Your task to perform on an android device: toggle show notifications on the lock screen Image 0: 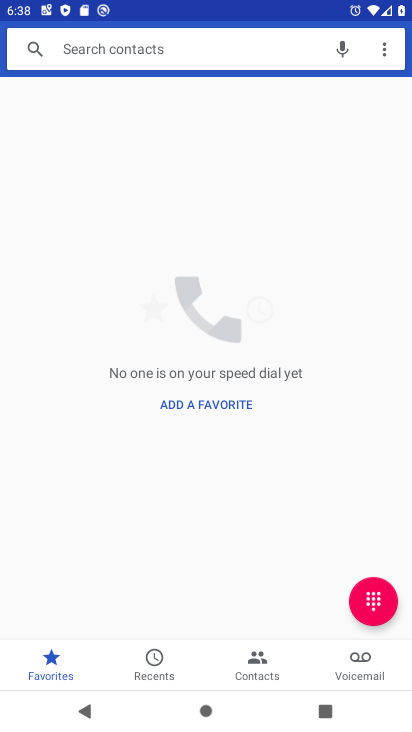
Step 0: press home button
Your task to perform on an android device: toggle show notifications on the lock screen Image 1: 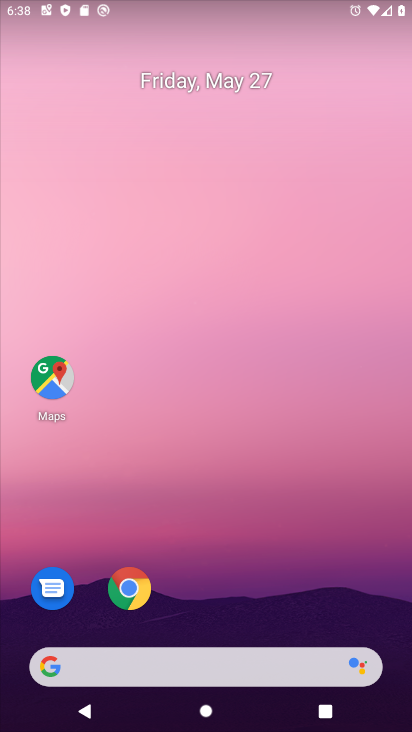
Step 1: drag from (200, 591) to (230, 143)
Your task to perform on an android device: toggle show notifications on the lock screen Image 2: 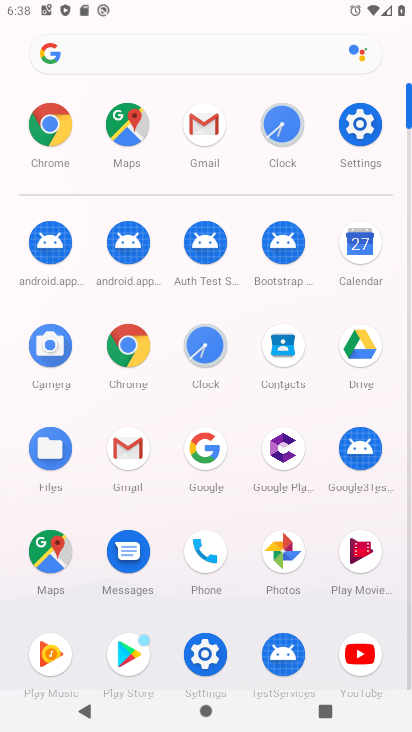
Step 2: click (204, 655)
Your task to perform on an android device: toggle show notifications on the lock screen Image 3: 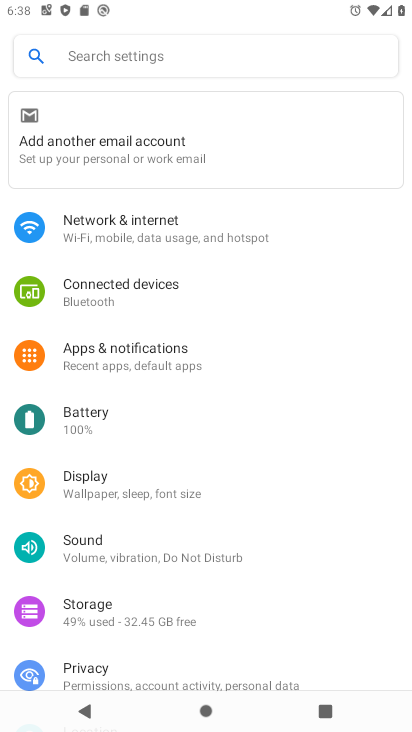
Step 3: click (115, 375)
Your task to perform on an android device: toggle show notifications on the lock screen Image 4: 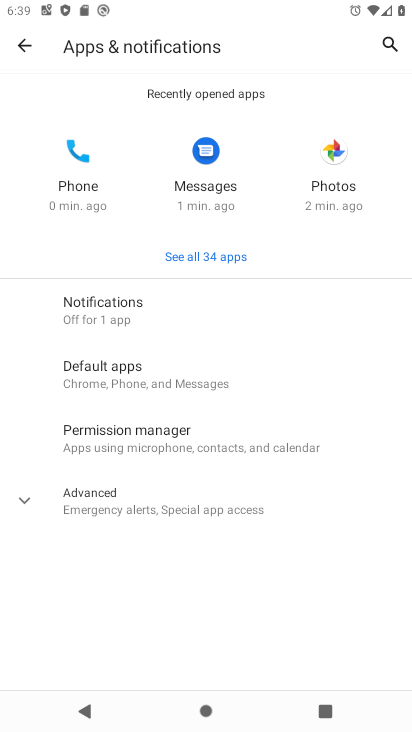
Step 4: click (138, 293)
Your task to perform on an android device: toggle show notifications on the lock screen Image 5: 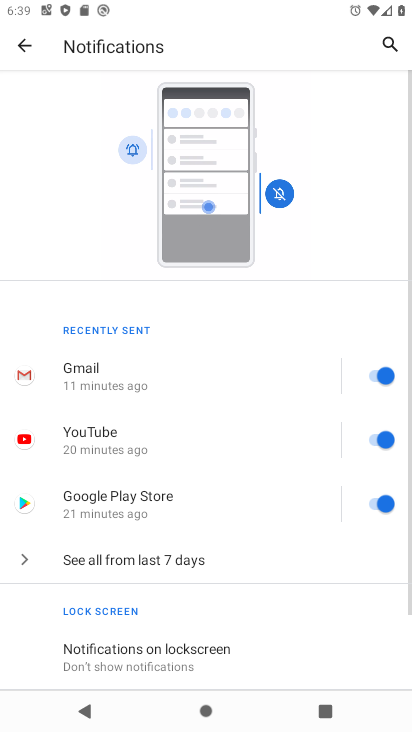
Step 5: click (161, 651)
Your task to perform on an android device: toggle show notifications on the lock screen Image 6: 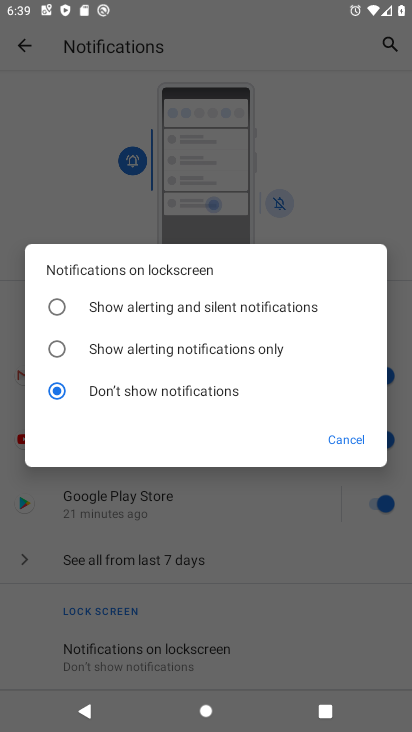
Step 6: click (270, 345)
Your task to perform on an android device: toggle show notifications on the lock screen Image 7: 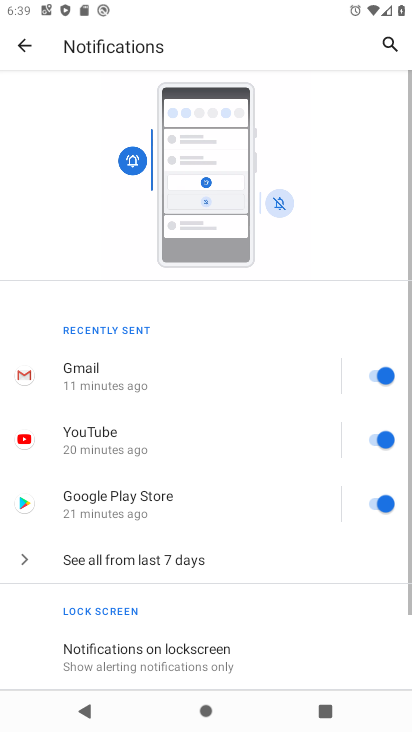
Step 7: task complete